Your task to perform on an android device: turn notification dots off Image 0: 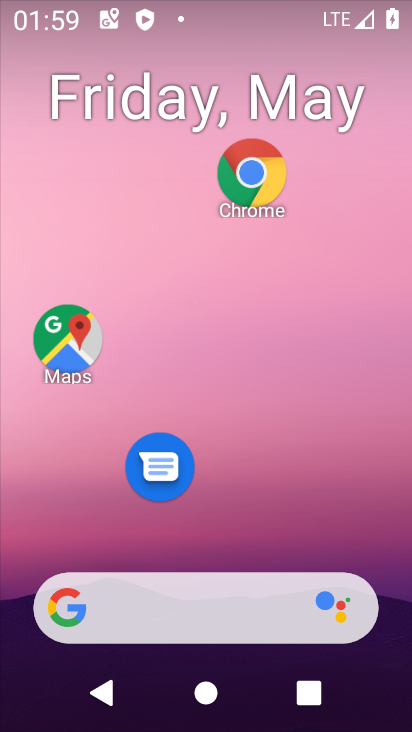
Step 0: drag from (203, 646) to (203, 100)
Your task to perform on an android device: turn notification dots off Image 1: 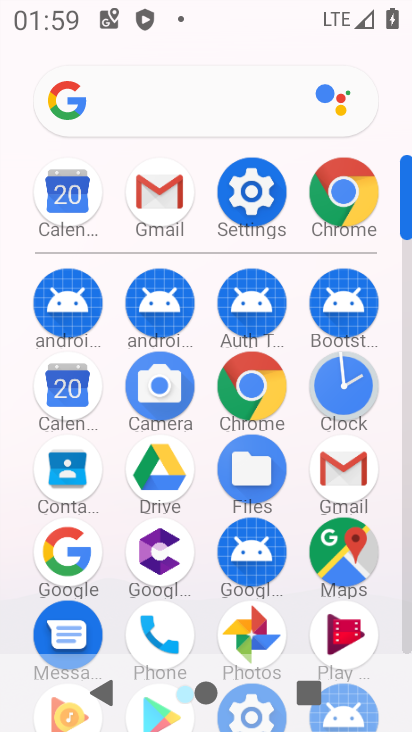
Step 1: click (255, 198)
Your task to perform on an android device: turn notification dots off Image 2: 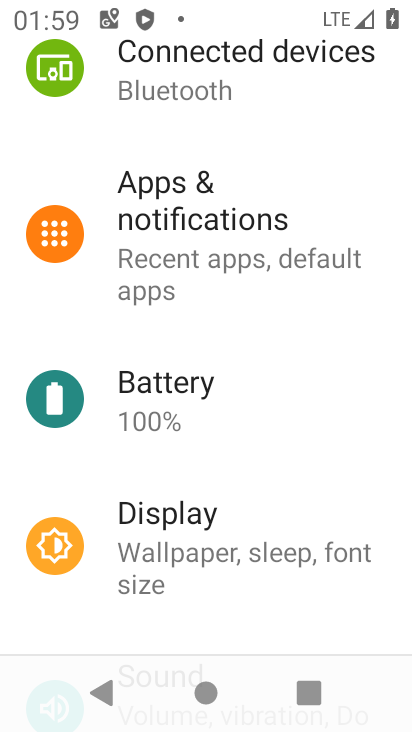
Step 2: drag from (171, 141) to (278, 360)
Your task to perform on an android device: turn notification dots off Image 3: 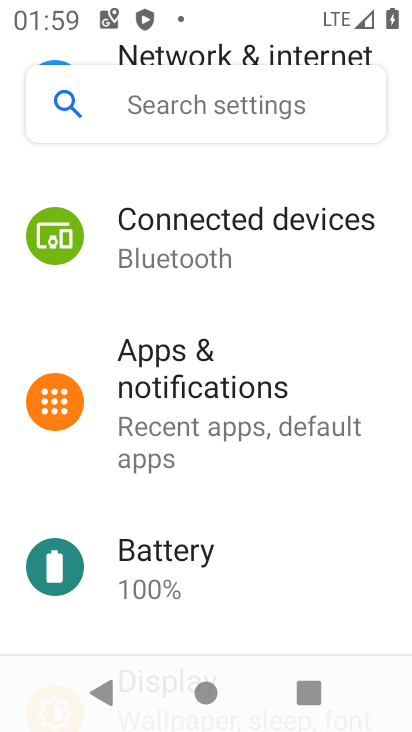
Step 3: click (175, 118)
Your task to perform on an android device: turn notification dots off Image 4: 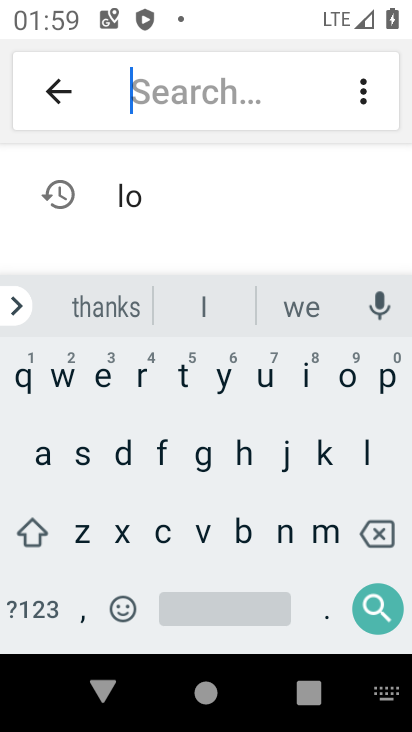
Step 4: click (126, 456)
Your task to perform on an android device: turn notification dots off Image 5: 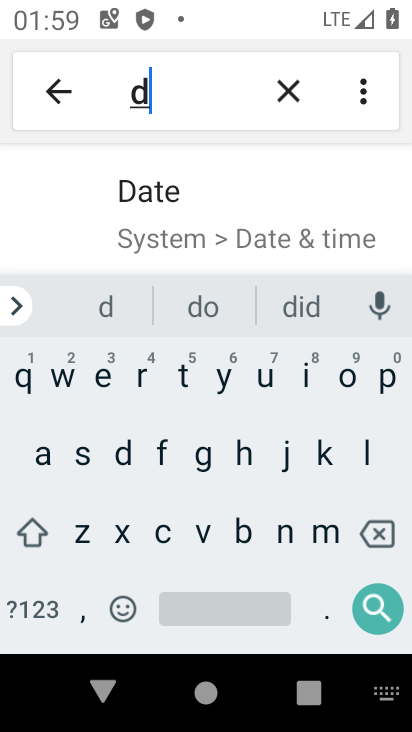
Step 5: click (349, 384)
Your task to perform on an android device: turn notification dots off Image 6: 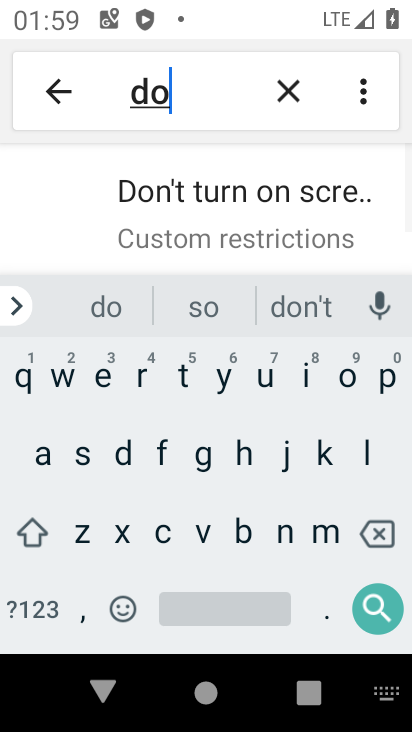
Step 6: click (177, 381)
Your task to perform on an android device: turn notification dots off Image 7: 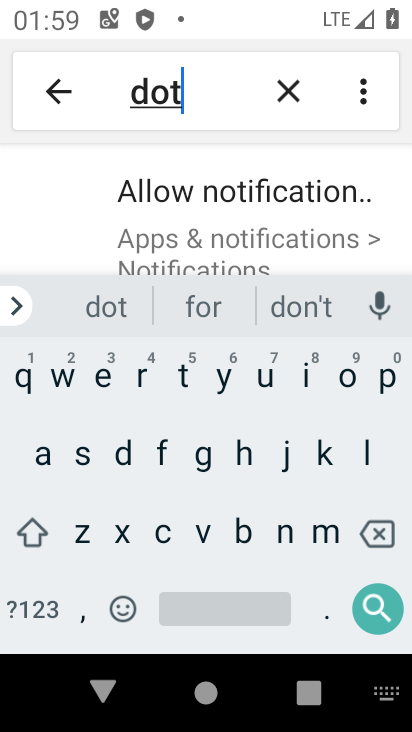
Step 7: click (195, 218)
Your task to perform on an android device: turn notification dots off Image 8: 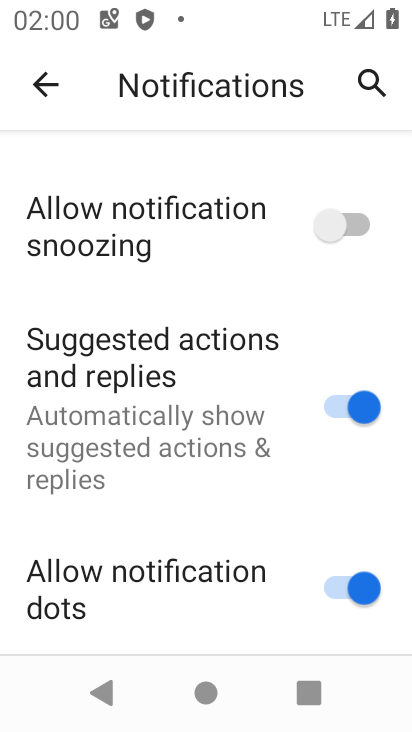
Step 8: drag from (236, 541) to (206, 327)
Your task to perform on an android device: turn notification dots off Image 9: 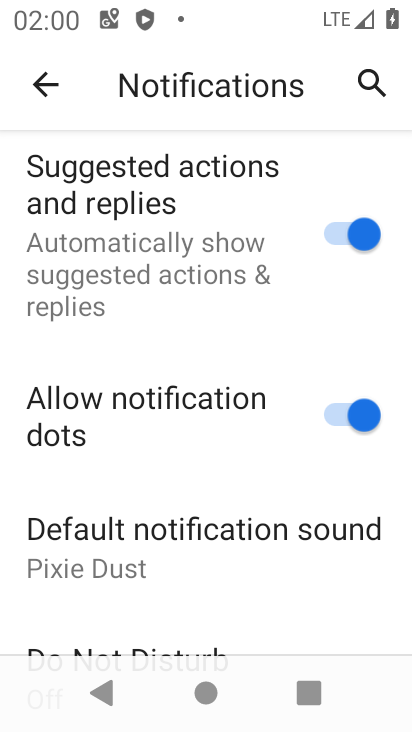
Step 9: click (257, 430)
Your task to perform on an android device: turn notification dots off Image 10: 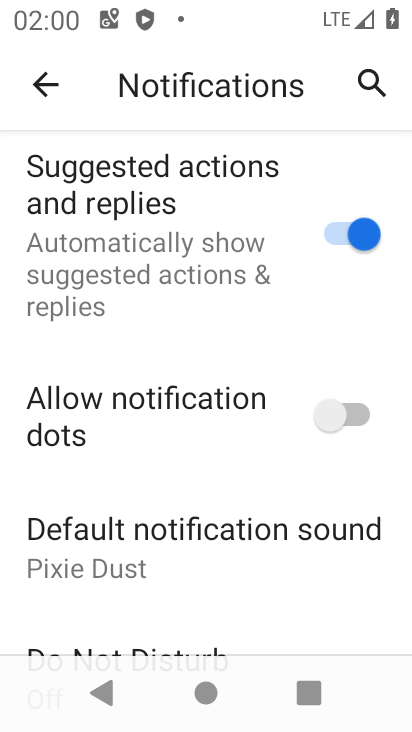
Step 10: task complete